Your task to perform on an android device: Open the Play Movies app and select the watchlist tab. Image 0: 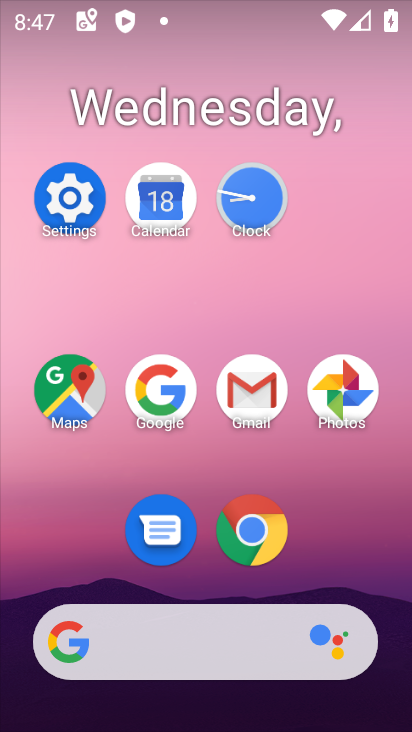
Step 0: drag from (320, 579) to (302, 116)
Your task to perform on an android device: Open the Play Movies app and select the watchlist tab. Image 1: 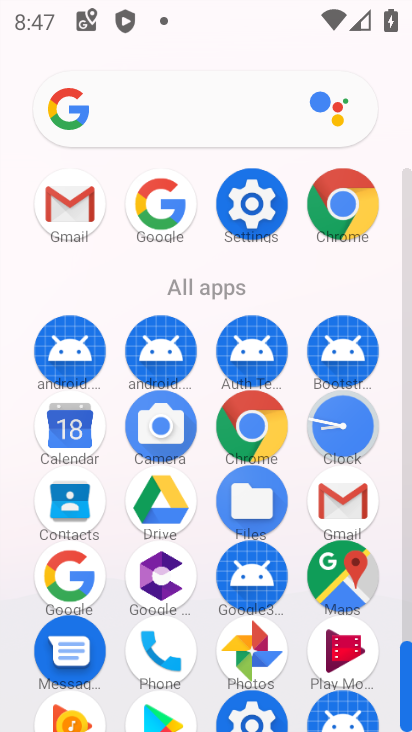
Step 1: drag from (282, 605) to (267, 273)
Your task to perform on an android device: Open the Play Movies app and select the watchlist tab. Image 2: 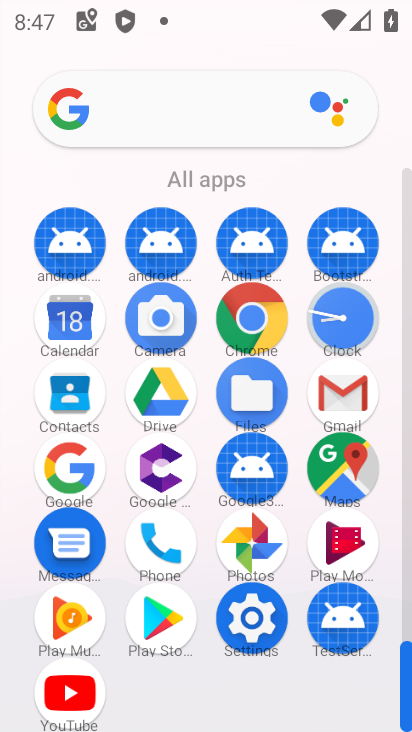
Step 2: click (356, 550)
Your task to perform on an android device: Open the Play Movies app and select the watchlist tab. Image 3: 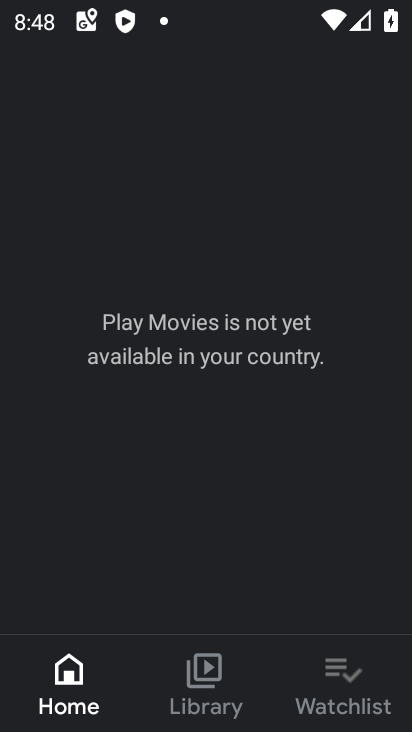
Step 3: click (325, 716)
Your task to perform on an android device: Open the Play Movies app and select the watchlist tab. Image 4: 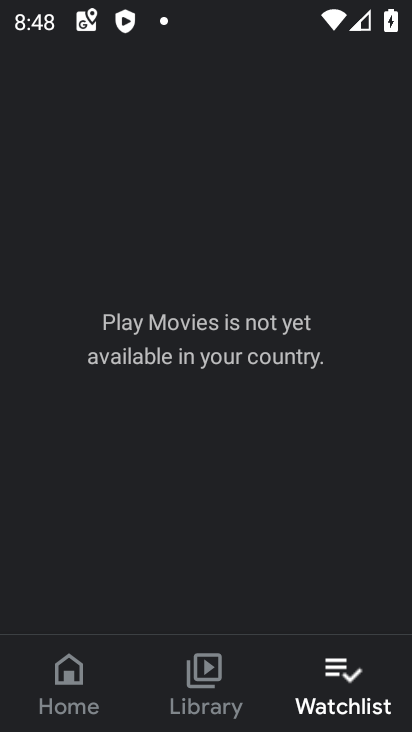
Step 4: task complete